Your task to perform on an android device: Open notification settings Image 0: 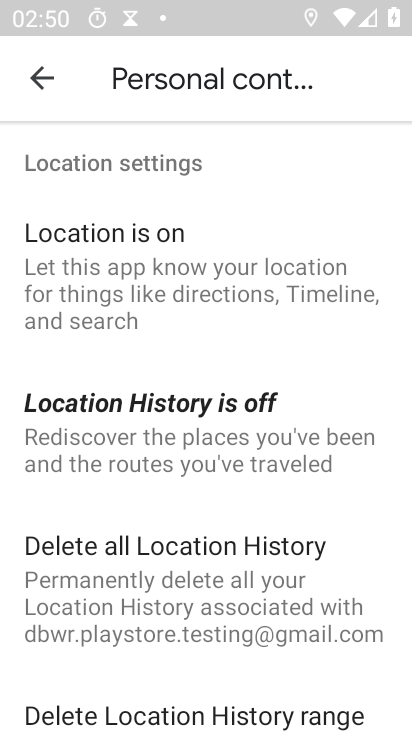
Step 0: press home button
Your task to perform on an android device: Open notification settings Image 1: 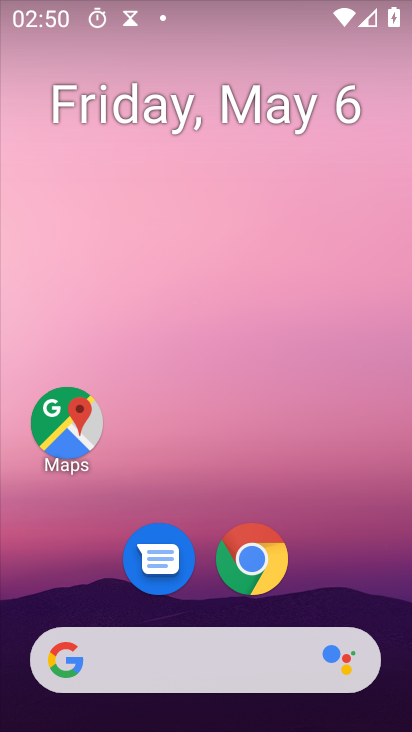
Step 1: drag from (353, 622) to (320, 2)
Your task to perform on an android device: Open notification settings Image 2: 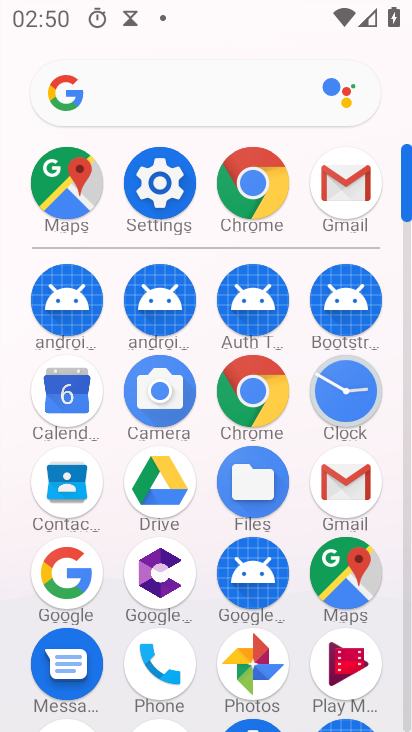
Step 2: click (153, 170)
Your task to perform on an android device: Open notification settings Image 3: 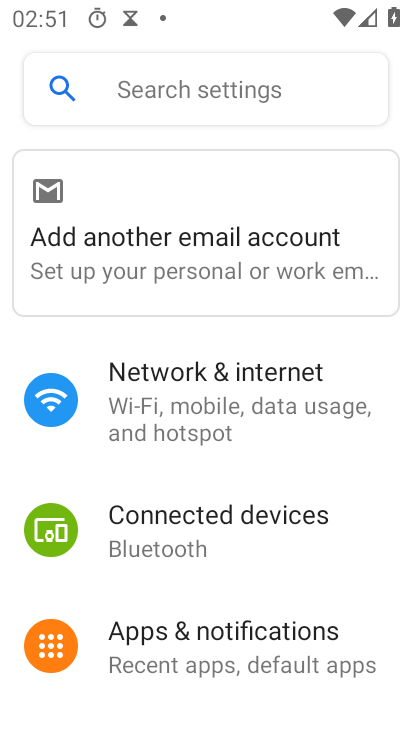
Step 3: click (268, 637)
Your task to perform on an android device: Open notification settings Image 4: 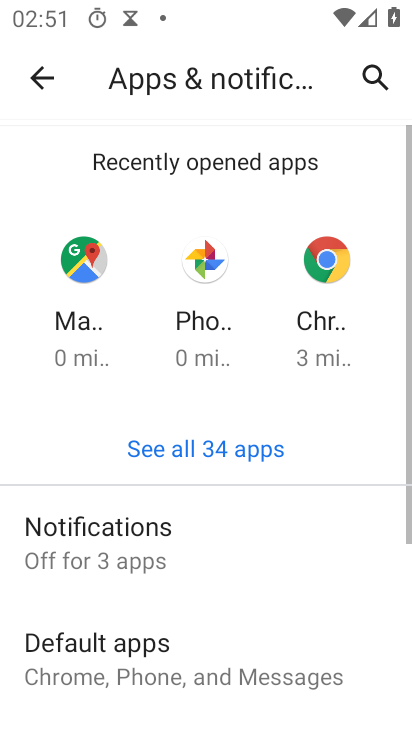
Step 4: drag from (216, 653) to (301, 20)
Your task to perform on an android device: Open notification settings Image 5: 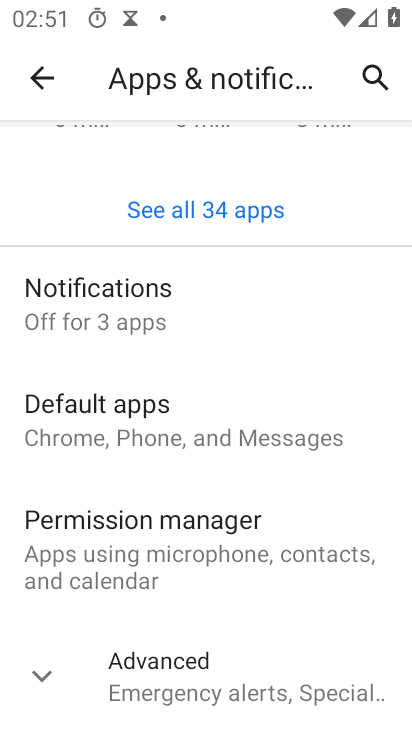
Step 5: click (184, 321)
Your task to perform on an android device: Open notification settings Image 6: 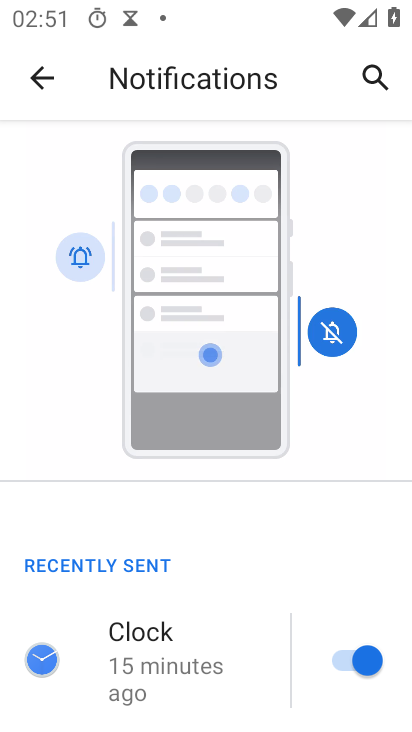
Step 6: drag from (246, 713) to (303, 225)
Your task to perform on an android device: Open notification settings Image 7: 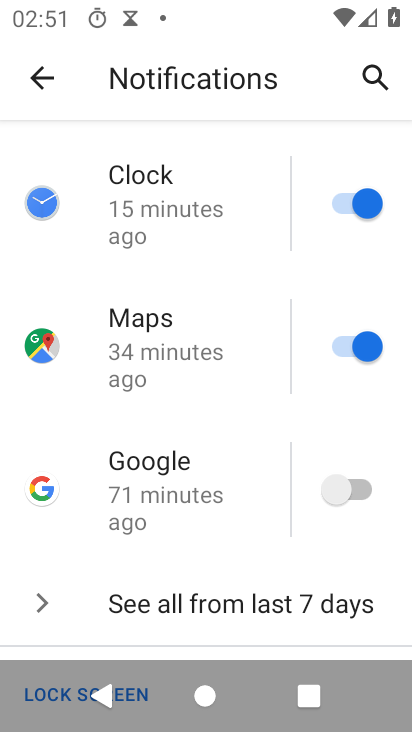
Step 7: drag from (204, 623) to (251, 235)
Your task to perform on an android device: Open notification settings Image 8: 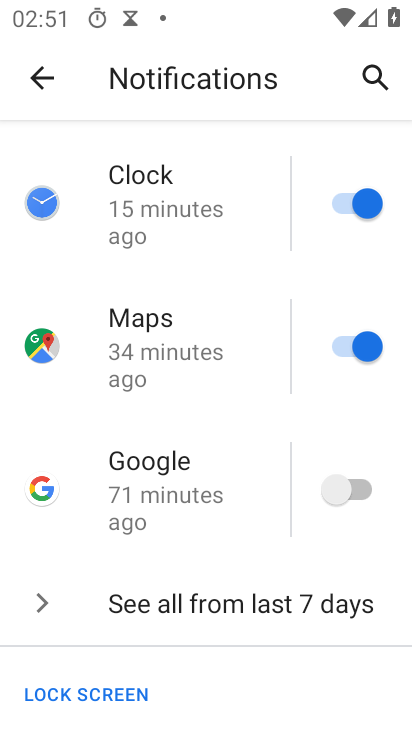
Step 8: drag from (182, 226) to (153, 656)
Your task to perform on an android device: Open notification settings Image 9: 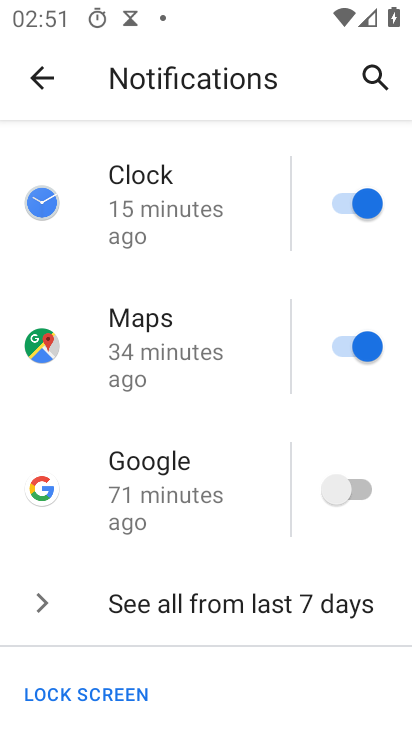
Step 9: drag from (214, 156) to (222, 558)
Your task to perform on an android device: Open notification settings Image 10: 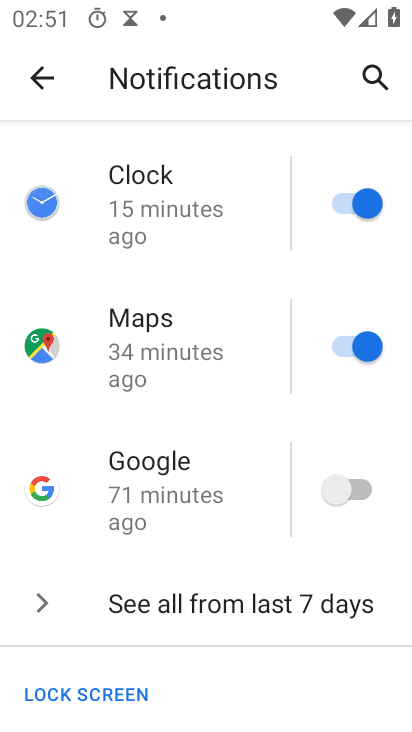
Step 10: drag from (227, 155) to (198, 589)
Your task to perform on an android device: Open notification settings Image 11: 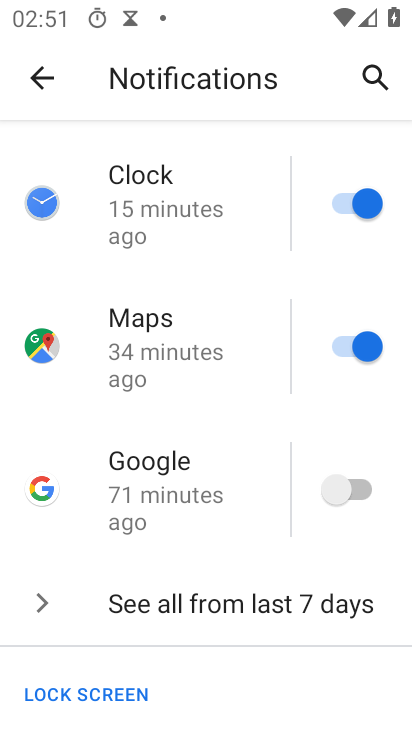
Step 11: click (341, 193)
Your task to perform on an android device: Open notification settings Image 12: 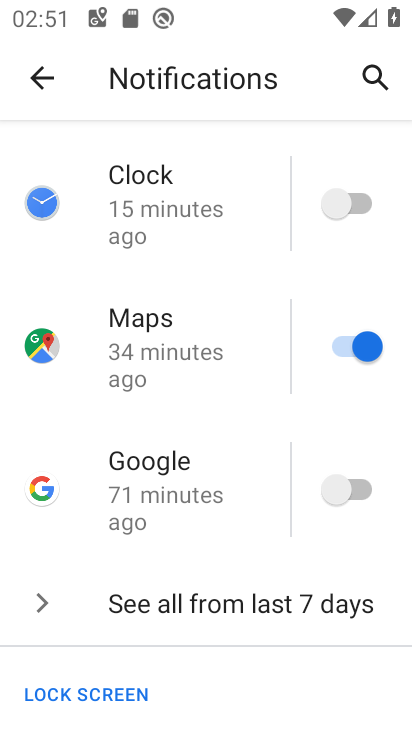
Step 12: click (346, 348)
Your task to perform on an android device: Open notification settings Image 13: 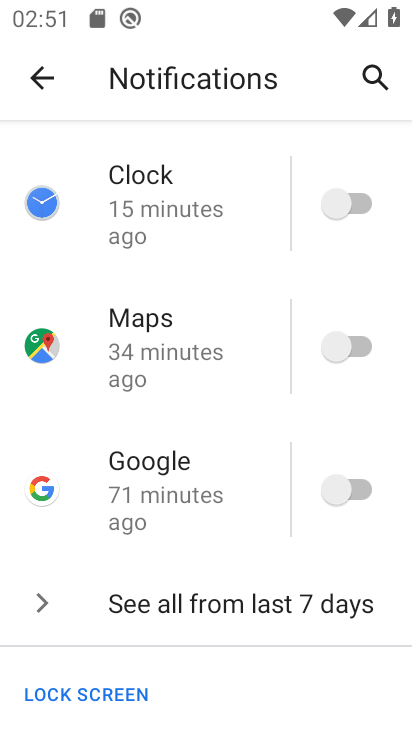
Step 13: task complete